Your task to perform on an android device: Go to Reddit.com Image 0: 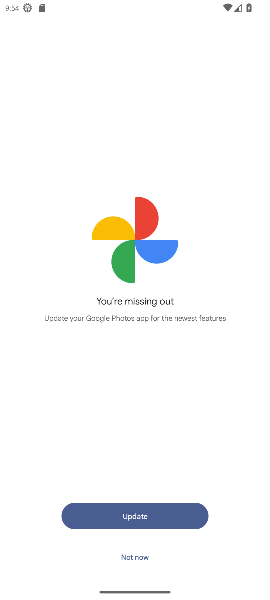
Step 0: press home button
Your task to perform on an android device: Go to Reddit.com Image 1: 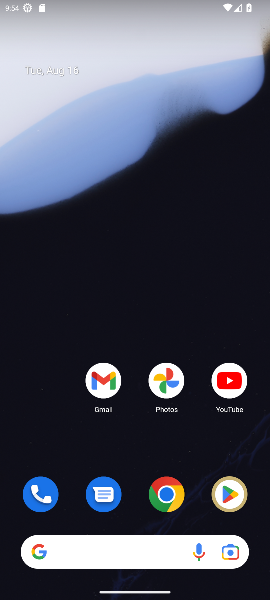
Step 1: click (169, 499)
Your task to perform on an android device: Go to Reddit.com Image 2: 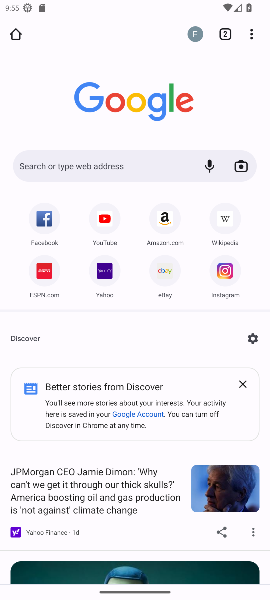
Step 2: click (77, 172)
Your task to perform on an android device: Go to Reddit.com Image 3: 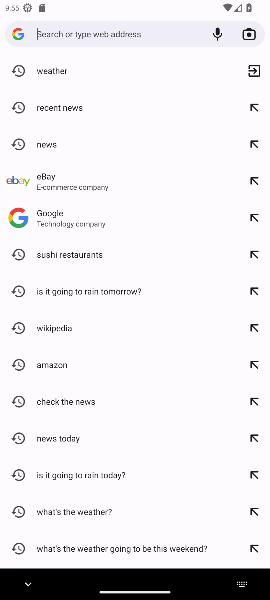
Step 3: type "Reddit.com"
Your task to perform on an android device: Go to Reddit.com Image 4: 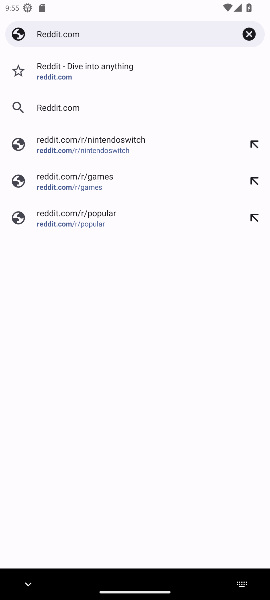
Step 4: click (52, 77)
Your task to perform on an android device: Go to Reddit.com Image 5: 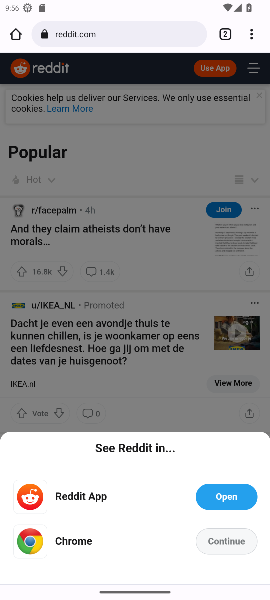
Step 5: task complete